Your task to perform on an android device: Go to Wikipedia Image 0: 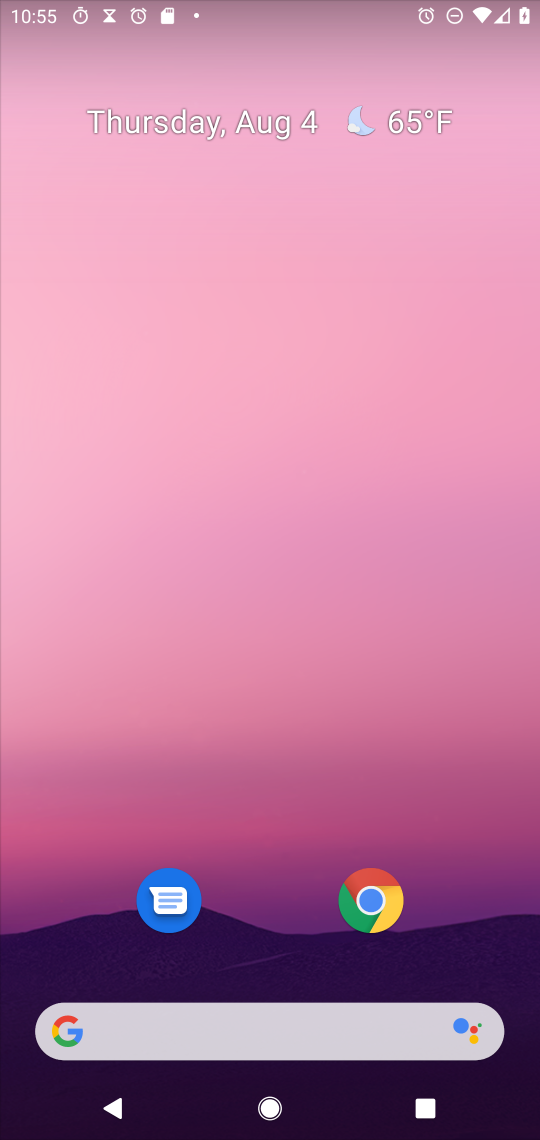
Step 0: click (376, 904)
Your task to perform on an android device: Go to Wikipedia Image 1: 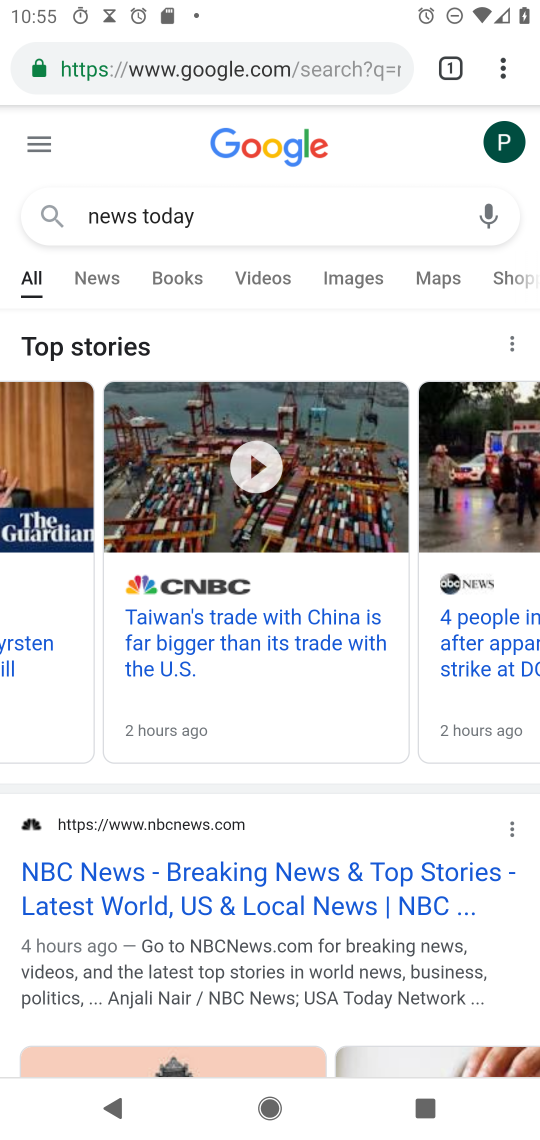
Step 1: click (277, 73)
Your task to perform on an android device: Go to Wikipedia Image 2: 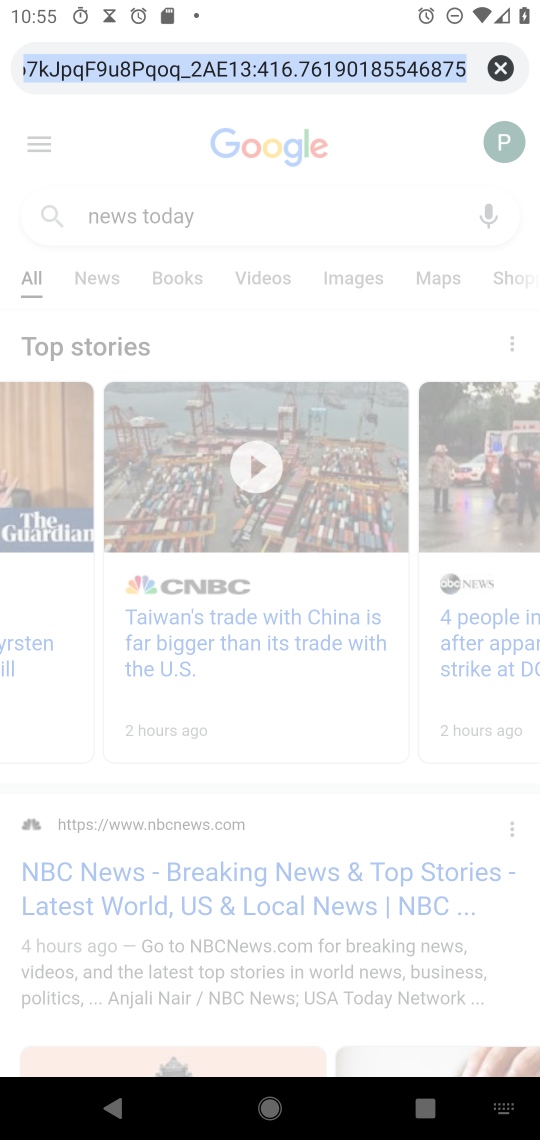
Step 2: type "Wikipedia"
Your task to perform on an android device: Go to Wikipedia Image 3: 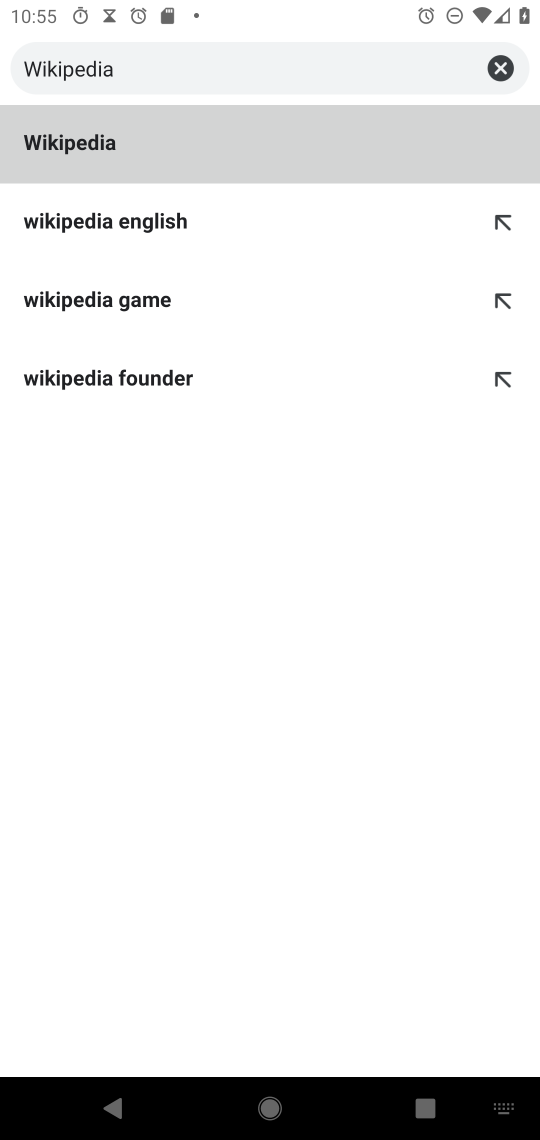
Step 3: click (229, 152)
Your task to perform on an android device: Go to Wikipedia Image 4: 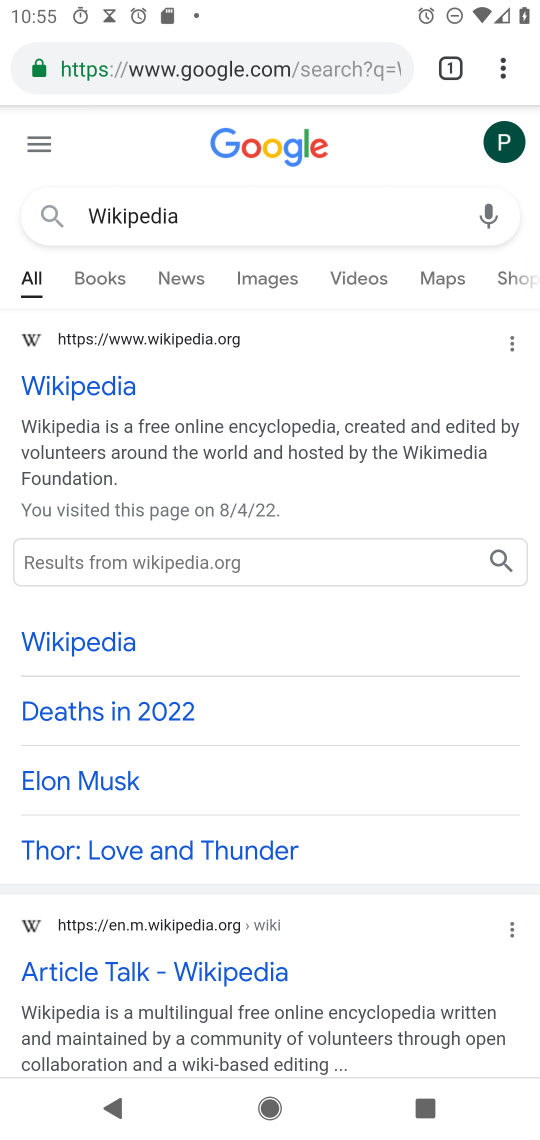
Step 4: click (101, 394)
Your task to perform on an android device: Go to Wikipedia Image 5: 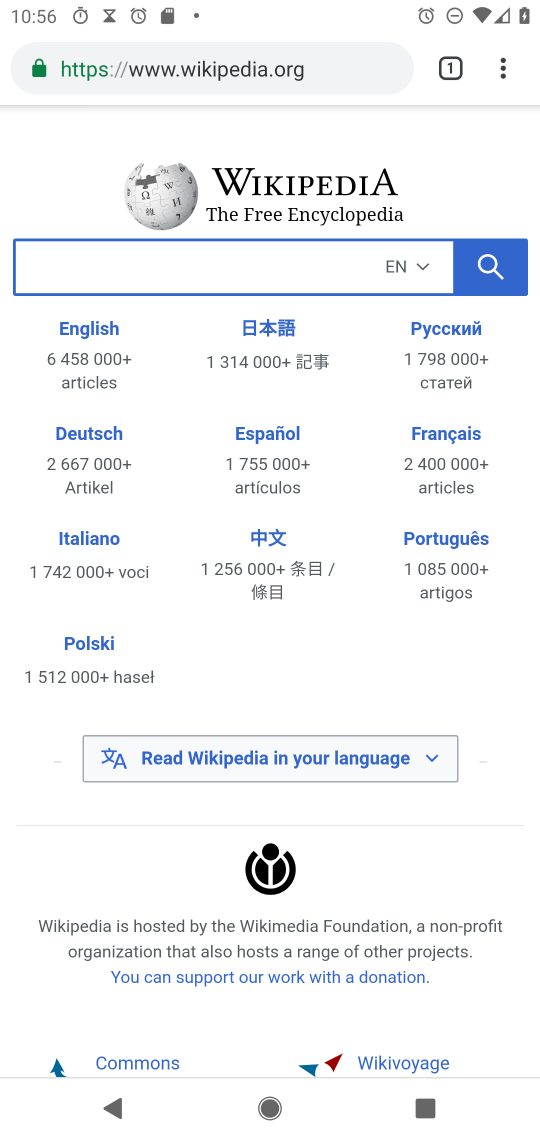
Step 5: task complete